Your task to perform on an android device: Search for Mexican restaurants on Maps Image 0: 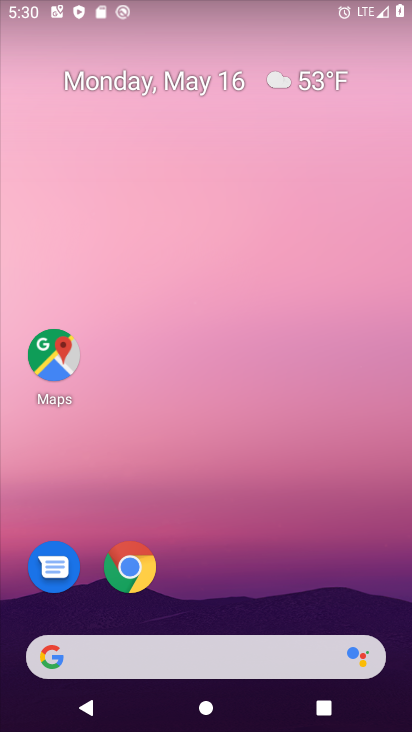
Step 0: drag from (200, 645) to (162, 85)
Your task to perform on an android device: Search for Mexican restaurants on Maps Image 1: 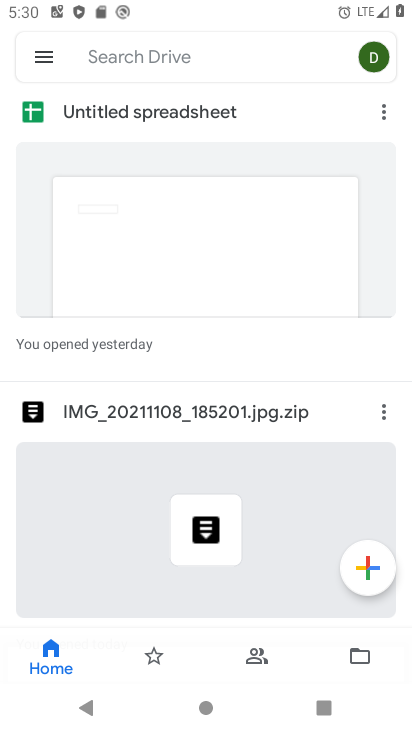
Step 1: press home button
Your task to perform on an android device: Search for Mexican restaurants on Maps Image 2: 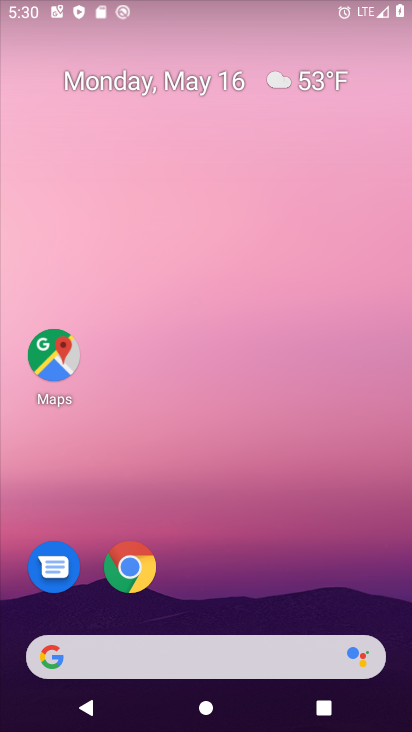
Step 2: drag from (212, 641) to (149, 107)
Your task to perform on an android device: Search for Mexican restaurants on Maps Image 3: 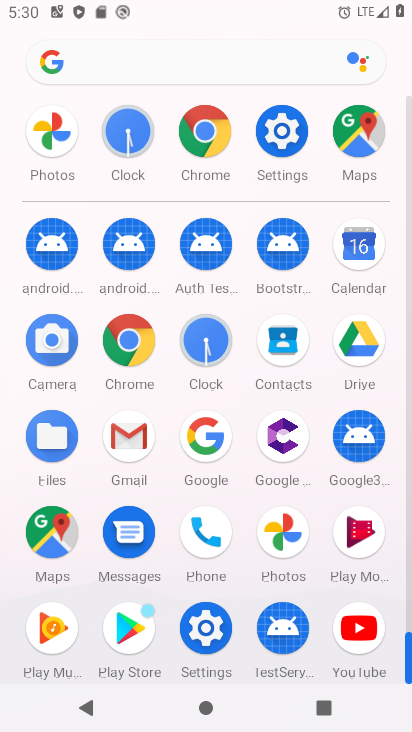
Step 3: click (43, 538)
Your task to perform on an android device: Search for Mexican restaurants on Maps Image 4: 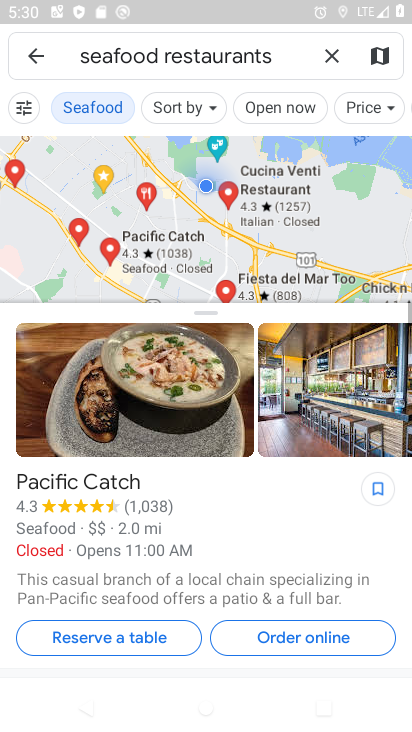
Step 4: click (328, 54)
Your task to perform on an android device: Search for Mexican restaurants on Maps Image 5: 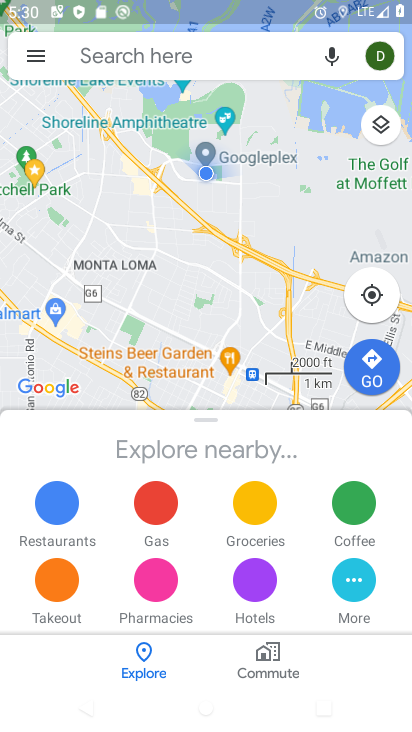
Step 5: click (242, 60)
Your task to perform on an android device: Search for Mexican restaurants on Maps Image 6: 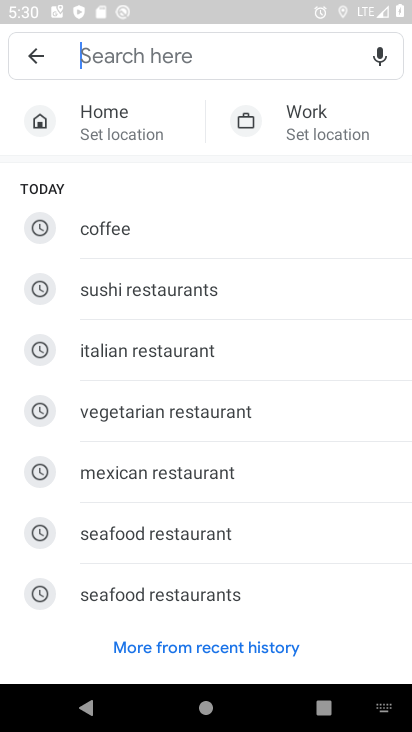
Step 6: click (215, 463)
Your task to perform on an android device: Search for Mexican restaurants on Maps Image 7: 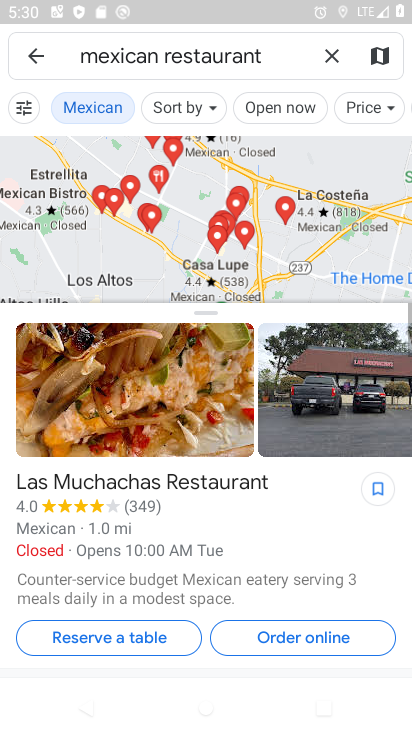
Step 7: task complete